Your task to perform on an android device: What's the weather today? Image 0: 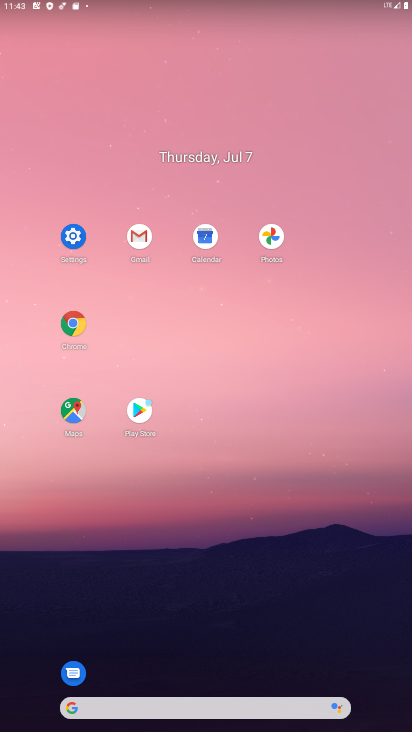
Step 0: click (73, 328)
Your task to perform on an android device: What's the weather today? Image 1: 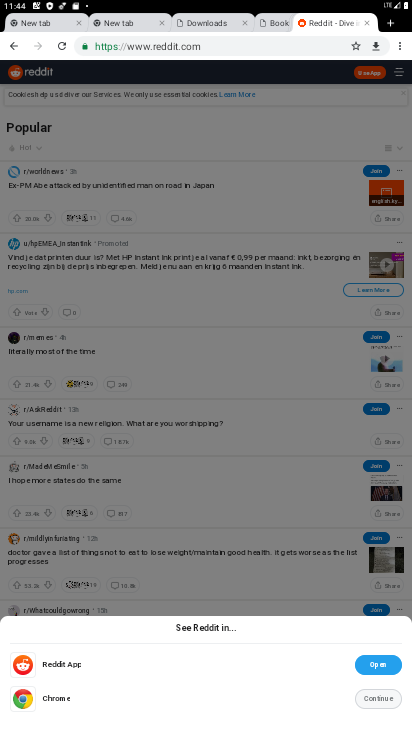
Step 1: click (389, 25)
Your task to perform on an android device: What's the weather today? Image 2: 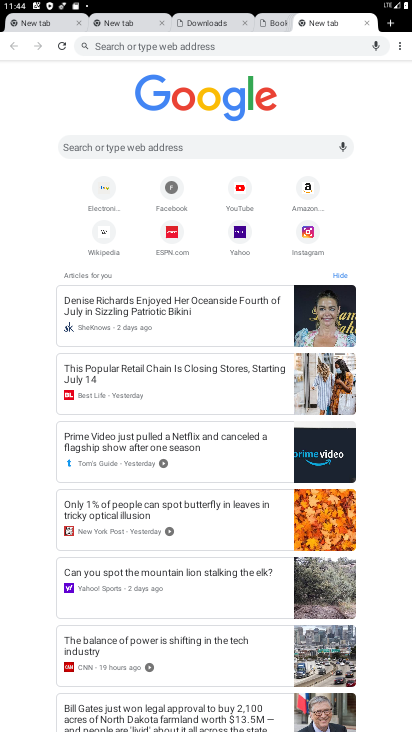
Step 2: click (145, 144)
Your task to perform on an android device: What's the weather today? Image 3: 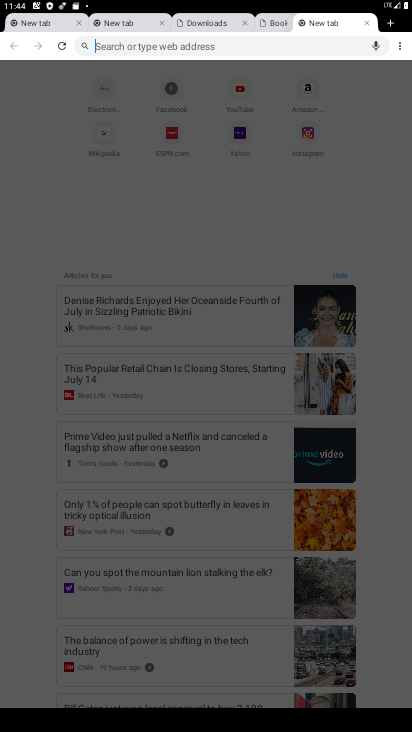
Step 3: type "weather"
Your task to perform on an android device: What's the weather today? Image 4: 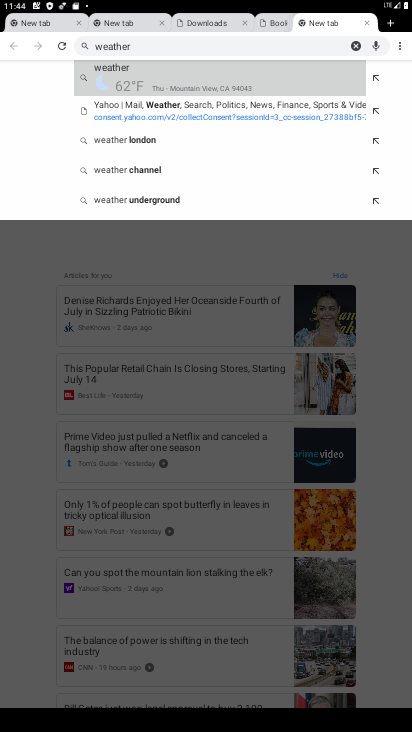
Step 4: click (163, 70)
Your task to perform on an android device: What's the weather today? Image 5: 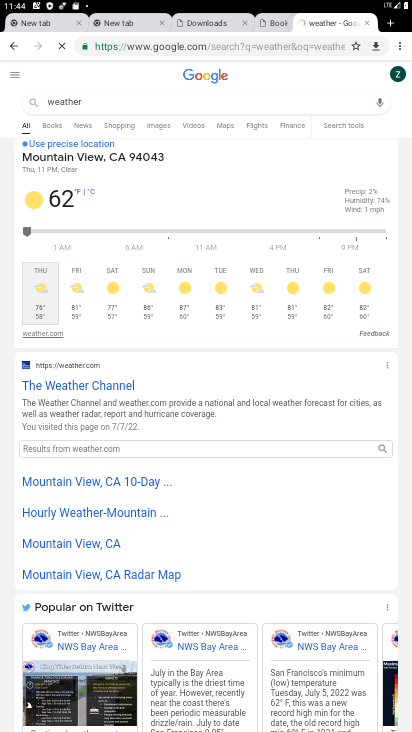
Step 5: task complete